Your task to perform on an android device: open app "Spotify" (install if not already installed) and enter user name: "infallible@icloud.com" and password: "implored" Image 0: 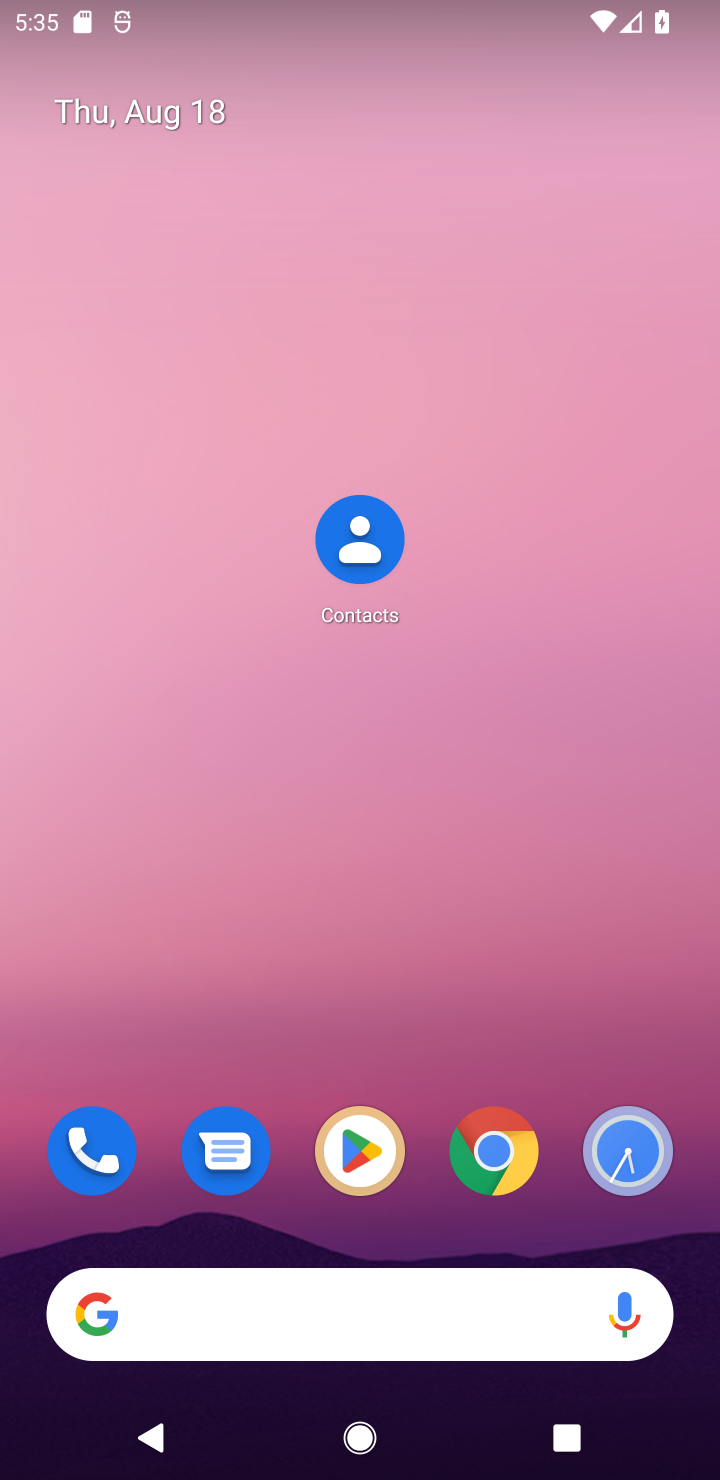
Step 0: drag from (427, 1244) to (529, 14)
Your task to perform on an android device: open app "Spotify" (install if not already installed) and enter user name: "infallible@icloud.com" and password: "implored" Image 1: 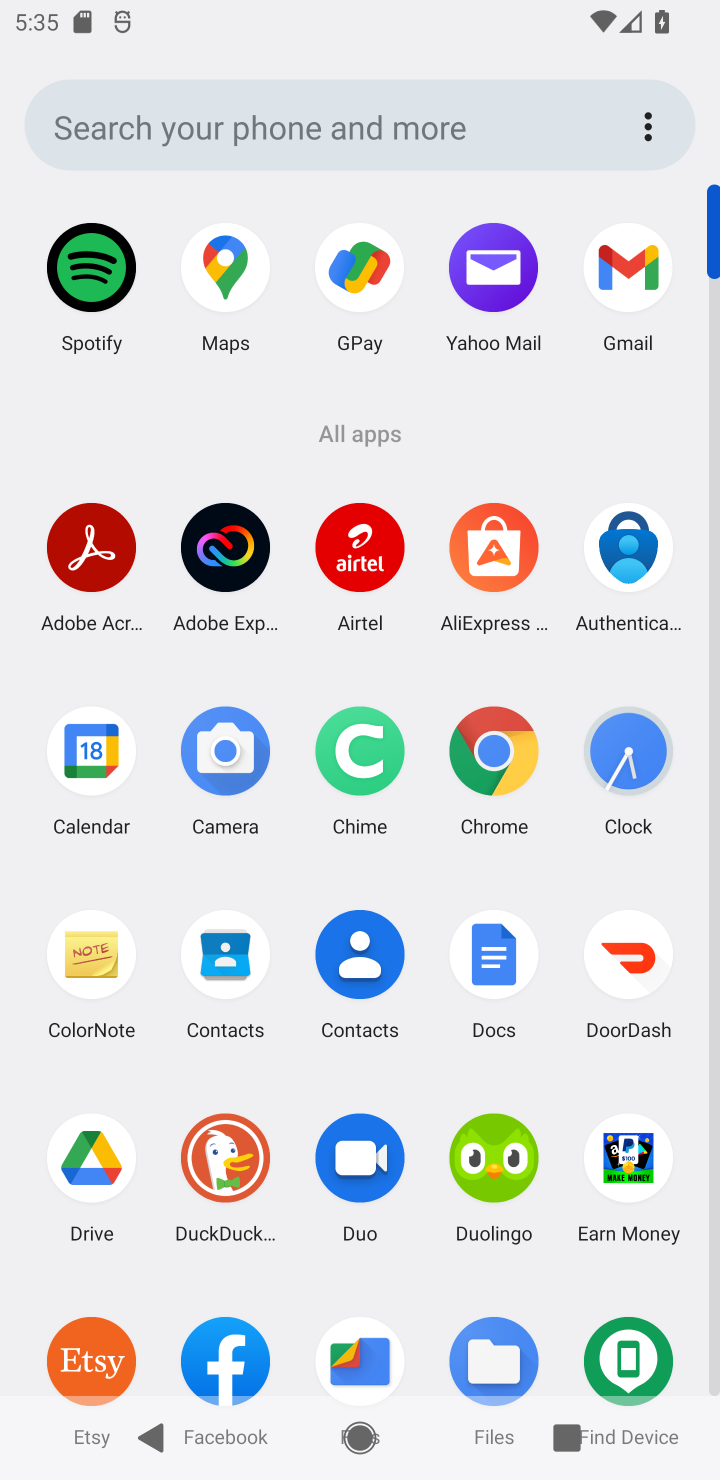
Step 1: click (87, 339)
Your task to perform on an android device: open app "Spotify" (install if not already installed) and enter user name: "infallible@icloud.com" and password: "implored" Image 2: 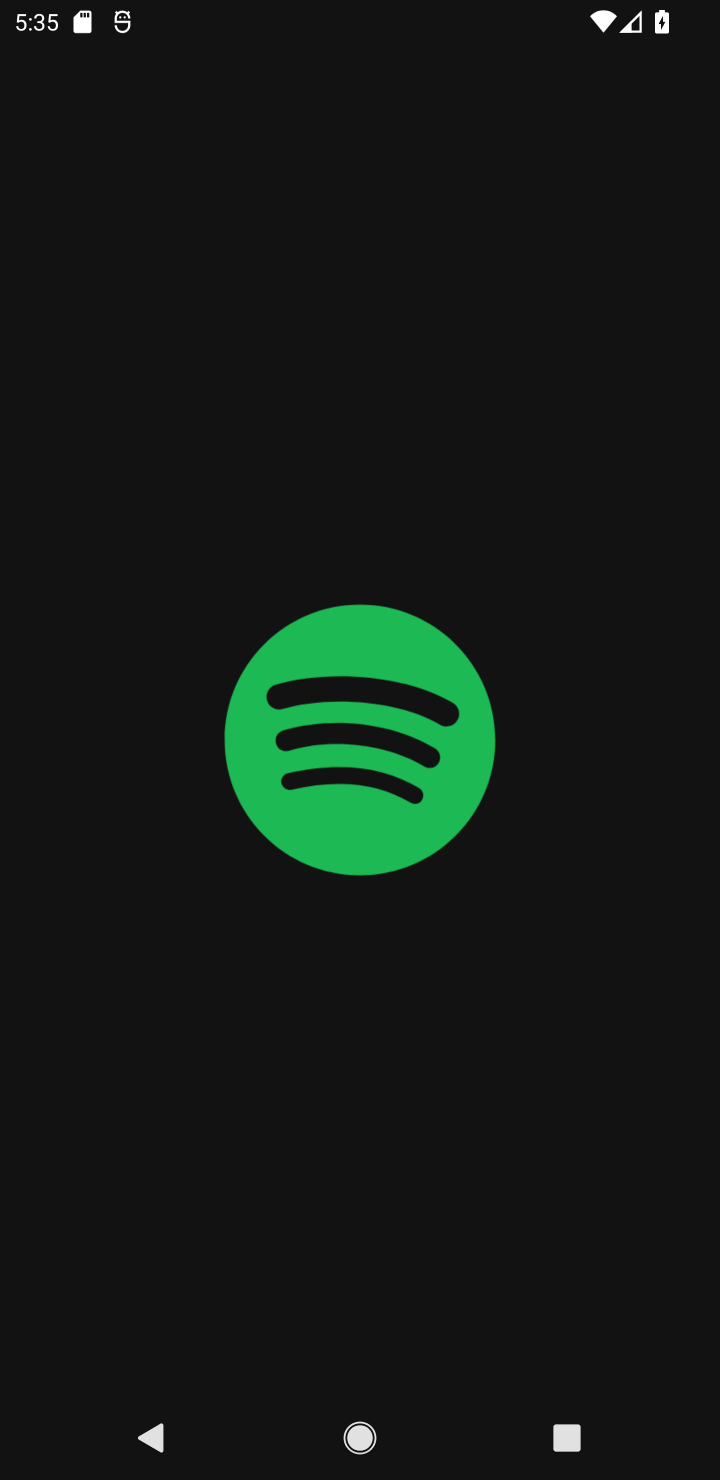
Step 2: task complete